Your task to perform on an android device: change alarm snooze length Image 0: 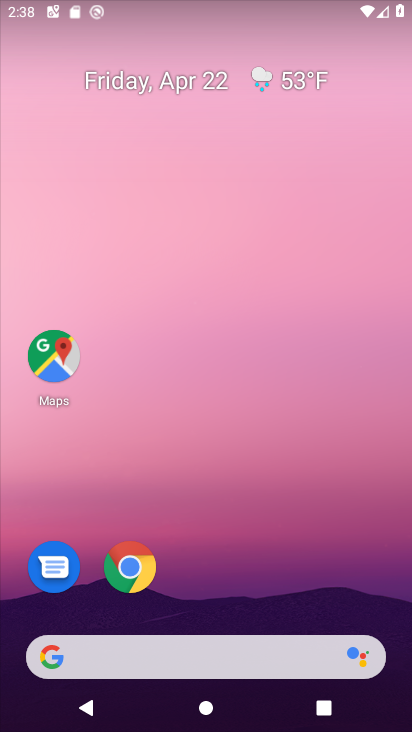
Step 0: drag from (280, 556) to (295, 89)
Your task to perform on an android device: change alarm snooze length Image 1: 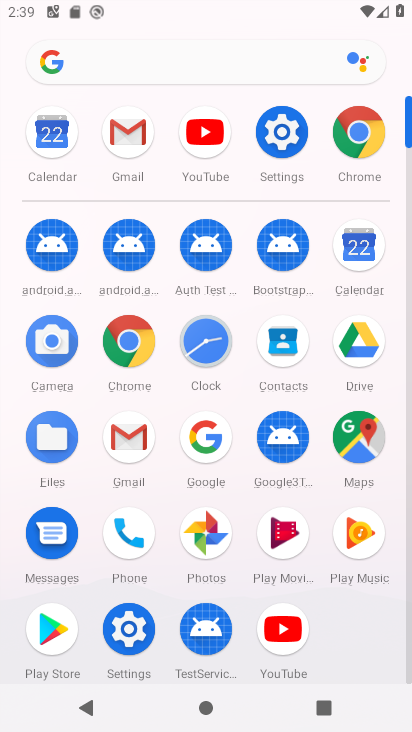
Step 1: click (217, 331)
Your task to perform on an android device: change alarm snooze length Image 2: 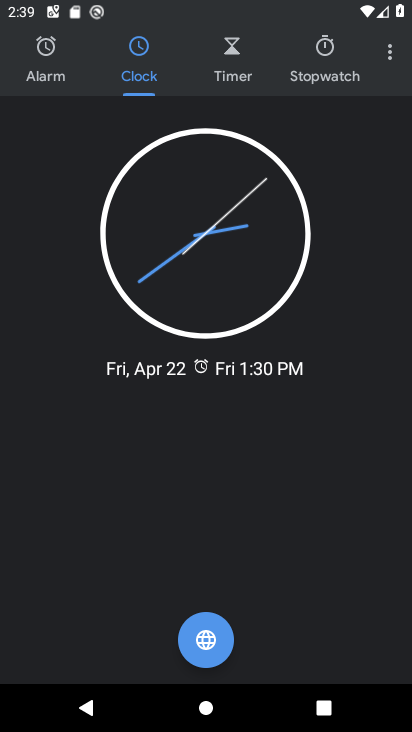
Step 2: click (392, 55)
Your task to perform on an android device: change alarm snooze length Image 3: 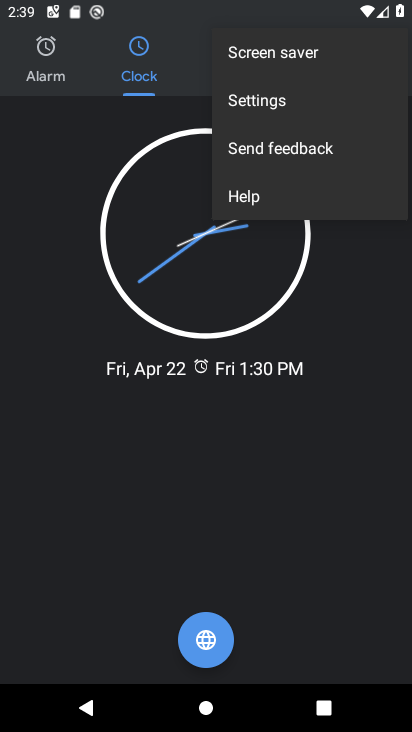
Step 3: click (331, 98)
Your task to perform on an android device: change alarm snooze length Image 4: 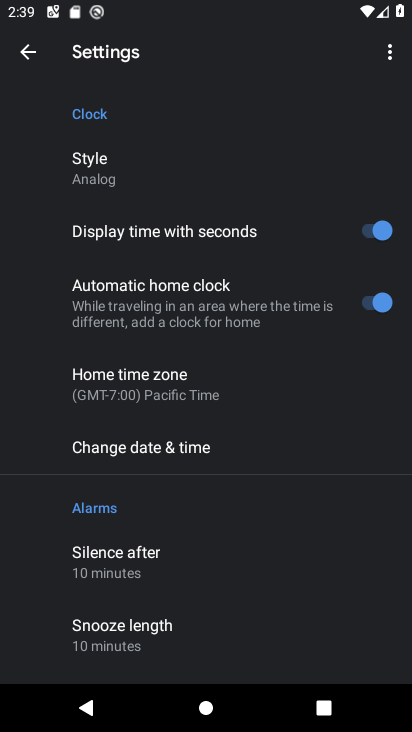
Step 4: click (226, 635)
Your task to perform on an android device: change alarm snooze length Image 5: 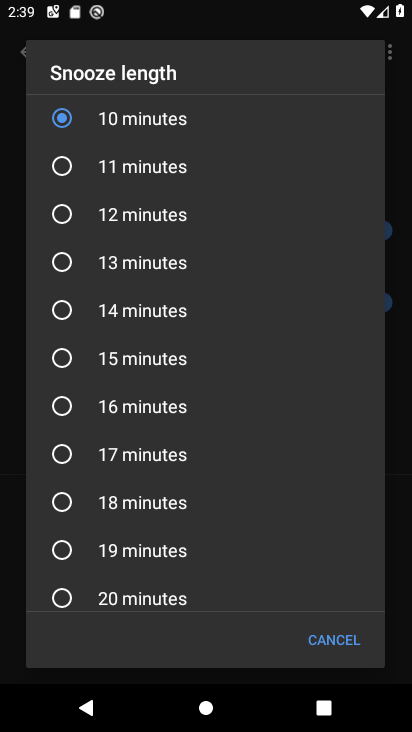
Step 5: click (166, 163)
Your task to perform on an android device: change alarm snooze length Image 6: 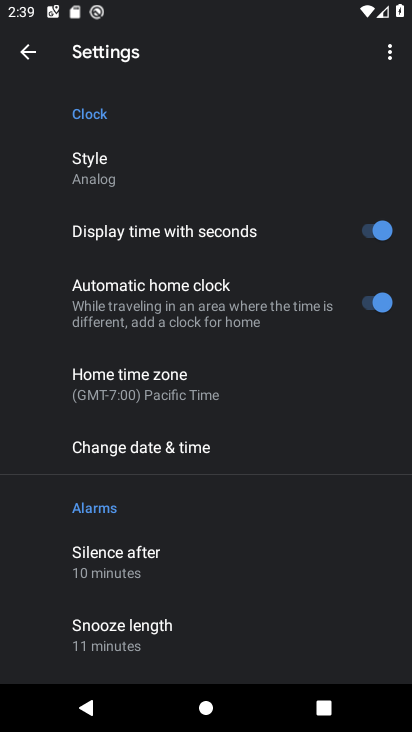
Step 6: task complete